Your task to perform on an android device: set the timer Image 0: 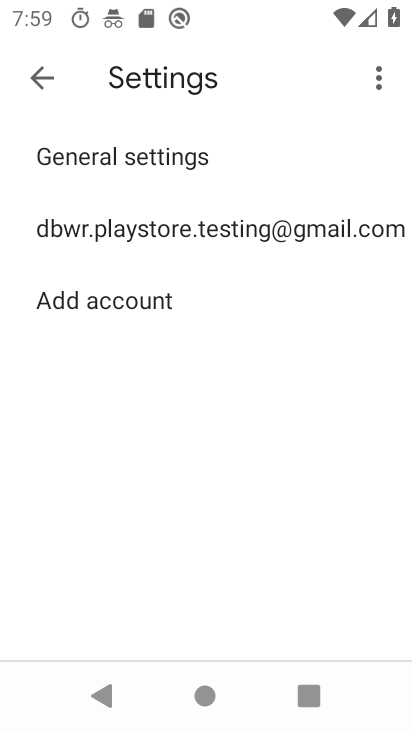
Step 0: press home button
Your task to perform on an android device: set the timer Image 1: 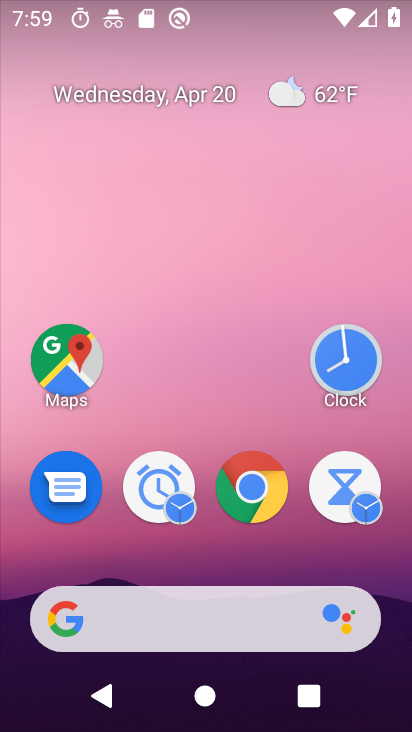
Step 1: drag from (313, 586) to (124, 2)
Your task to perform on an android device: set the timer Image 2: 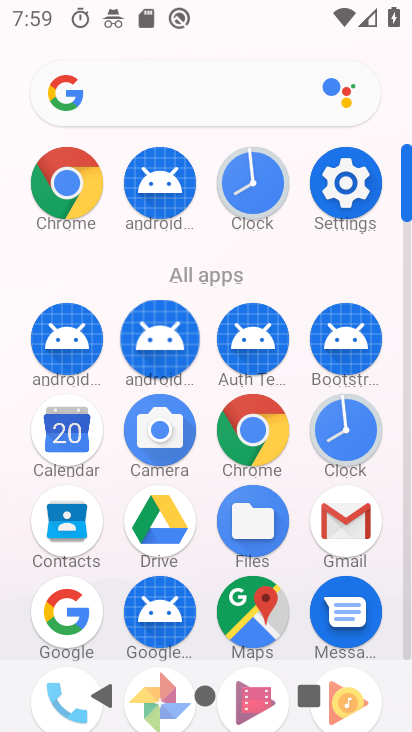
Step 2: drag from (261, 605) to (127, 154)
Your task to perform on an android device: set the timer Image 3: 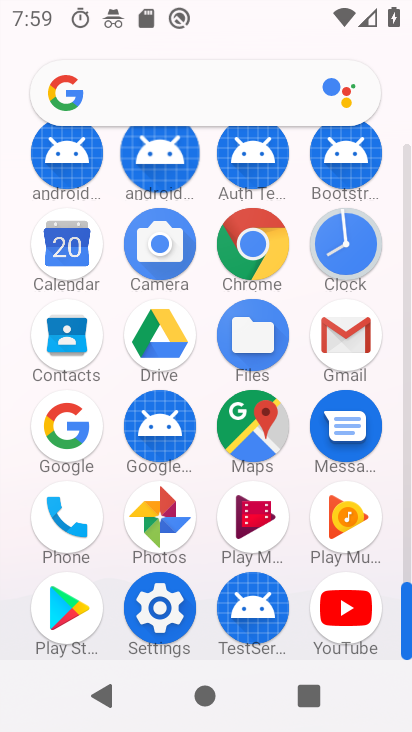
Step 3: click (334, 242)
Your task to perform on an android device: set the timer Image 4: 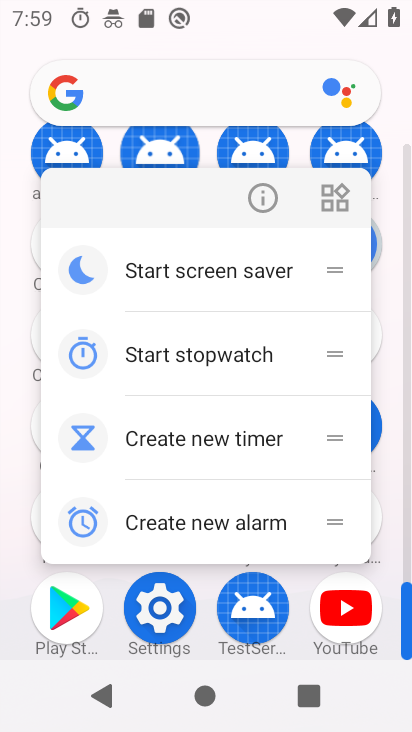
Step 4: click (338, 232)
Your task to perform on an android device: set the timer Image 5: 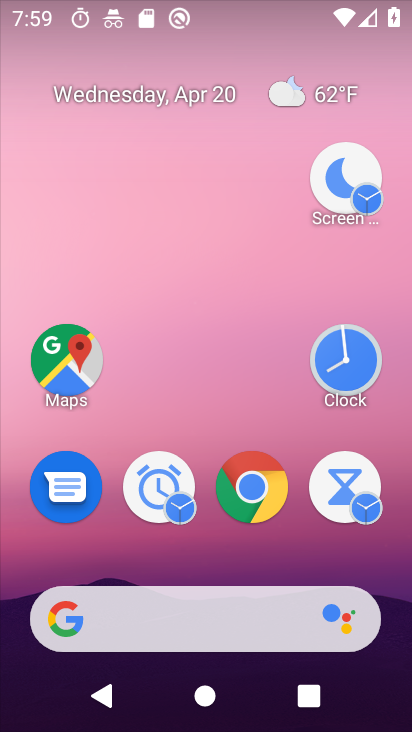
Step 5: drag from (298, 584) to (297, 268)
Your task to perform on an android device: set the timer Image 6: 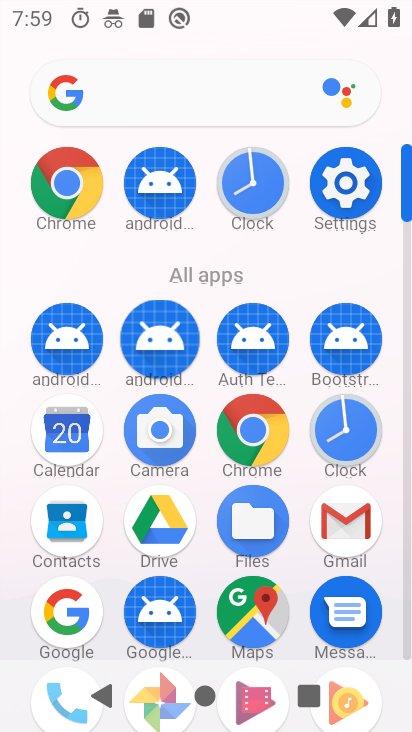
Step 6: click (341, 440)
Your task to perform on an android device: set the timer Image 7: 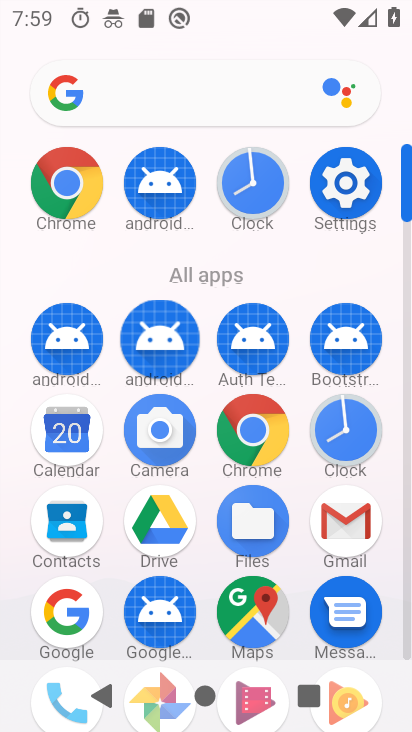
Step 7: click (341, 440)
Your task to perform on an android device: set the timer Image 8: 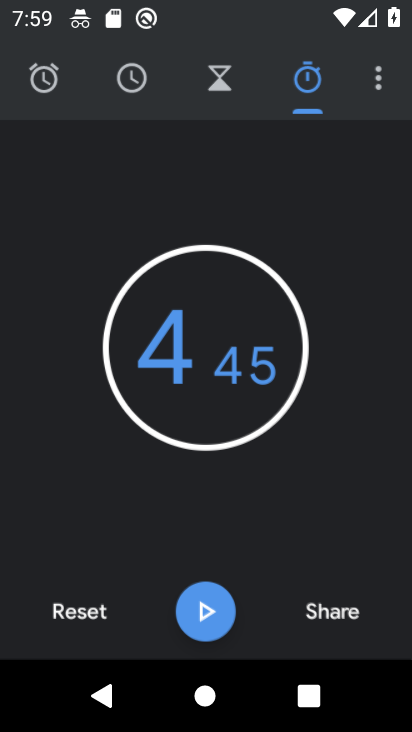
Step 8: click (342, 424)
Your task to perform on an android device: set the timer Image 9: 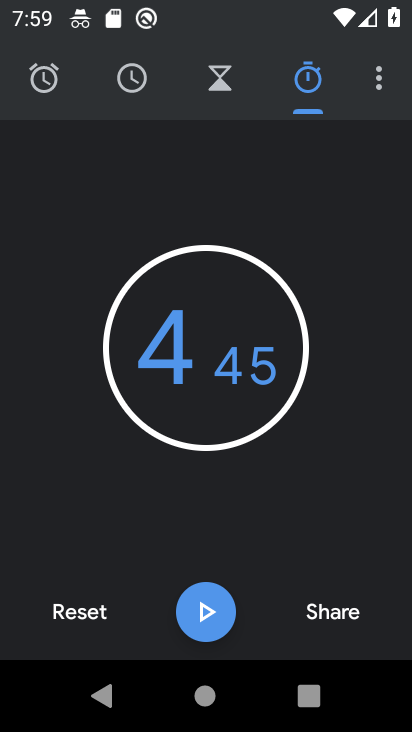
Step 9: click (133, 79)
Your task to perform on an android device: set the timer Image 10: 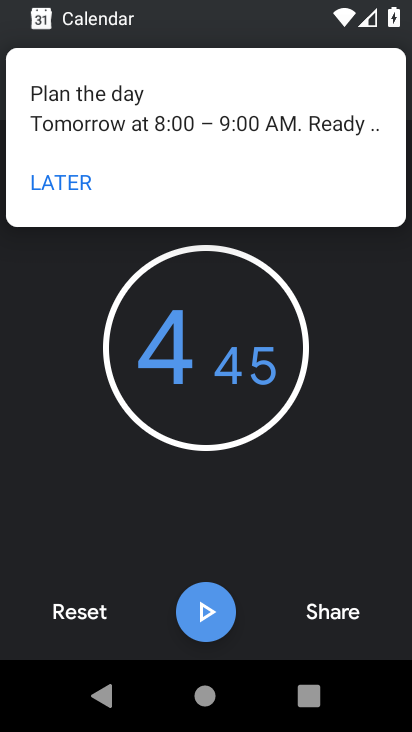
Step 10: click (213, 87)
Your task to perform on an android device: set the timer Image 11: 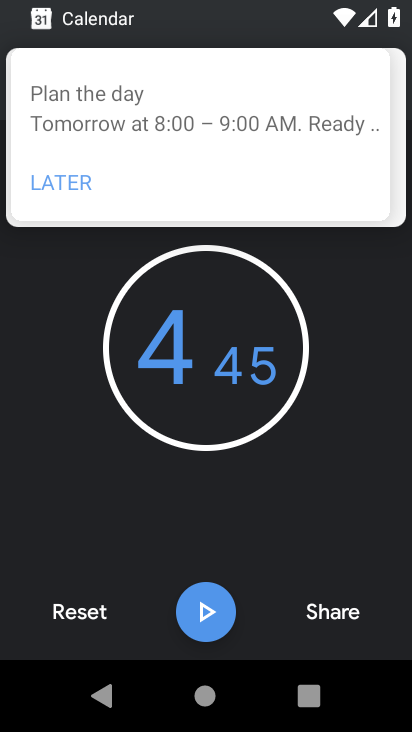
Step 11: drag from (6, 272) to (69, 262)
Your task to perform on an android device: set the timer Image 12: 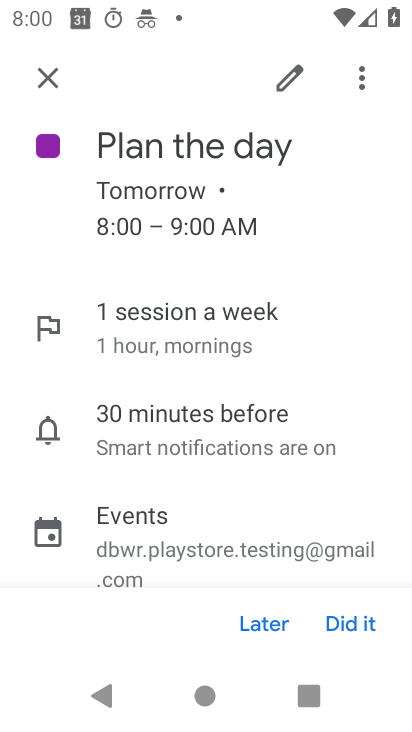
Step 12: click (50, 76)
Your task to perform on an android device: set the timer Image 13: 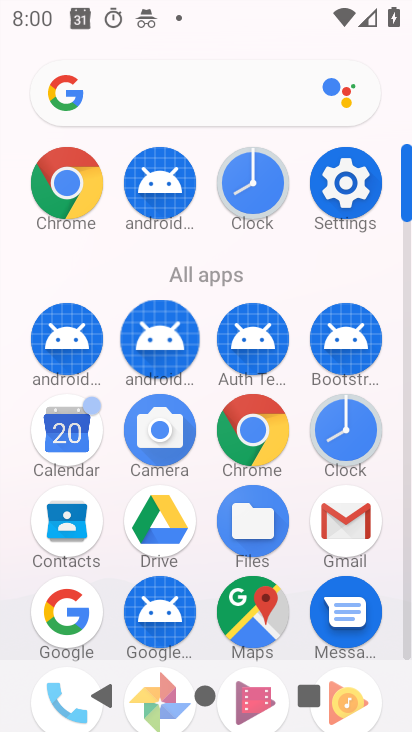
Step 13: click (233, 186)
Your task to perform on an android device: set the timer Image 14: 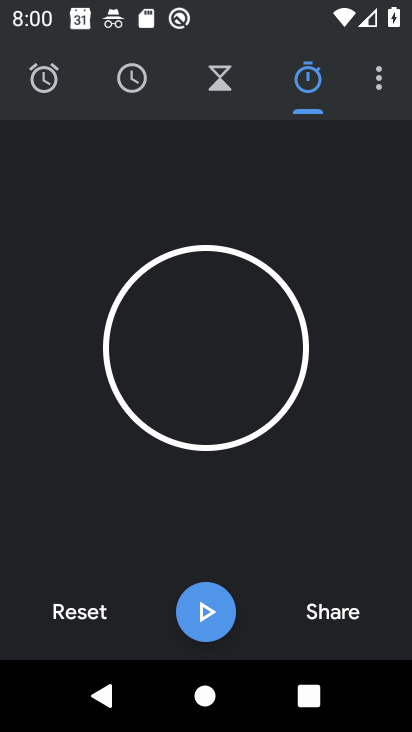
Step 14: click (233, 186)
Your task to perform on an android device: set the timer Image 15: 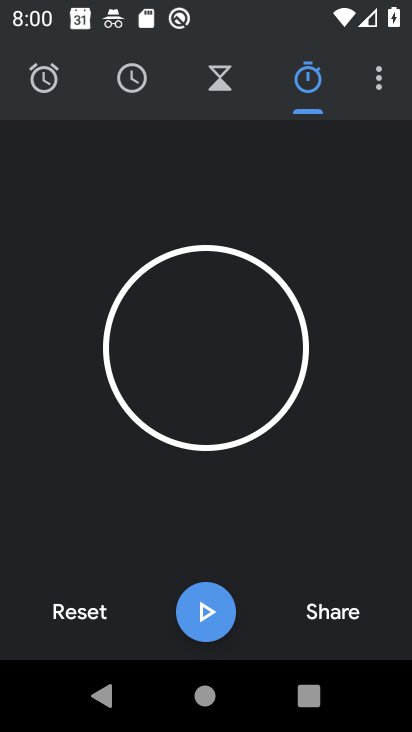
Step 15: click (124, 83)
Your task to perform on an android device: set the timer Image 16: 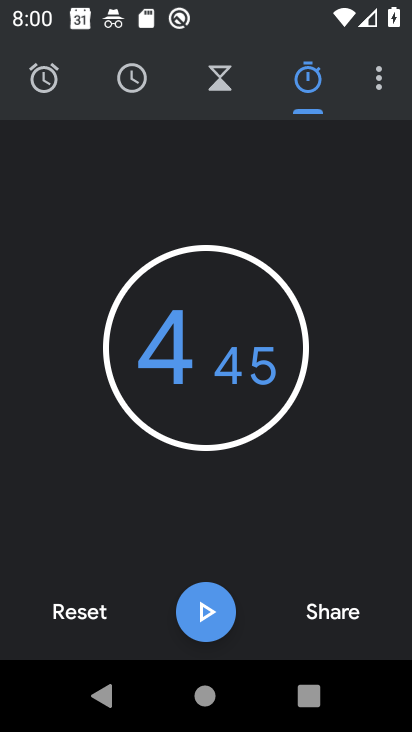
Step 16: click (218, 80)
Your task to perform on an android device: set the timer Image 17: 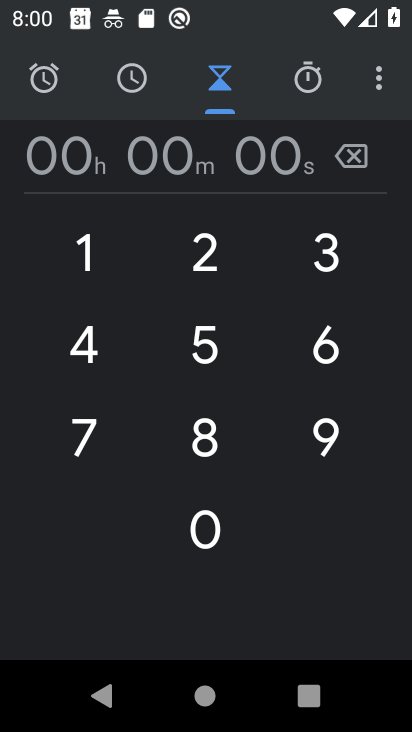
Step 17: click (184, 420)
Your task to perform on an android device: set the timer Image 18: 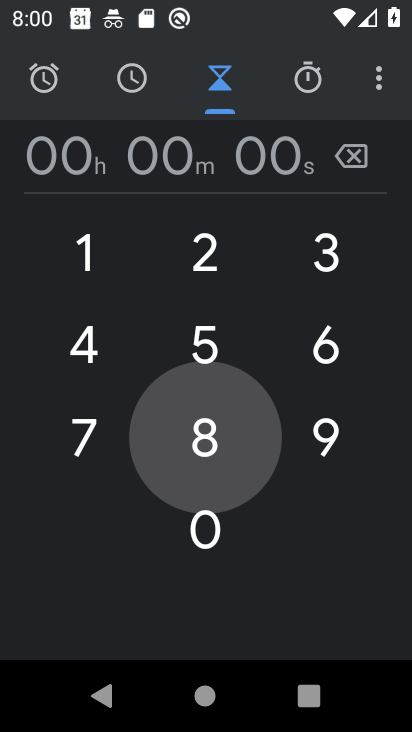
Step 18: click (184, 420)
Your task to perform on an android device: set the timer Image 19: 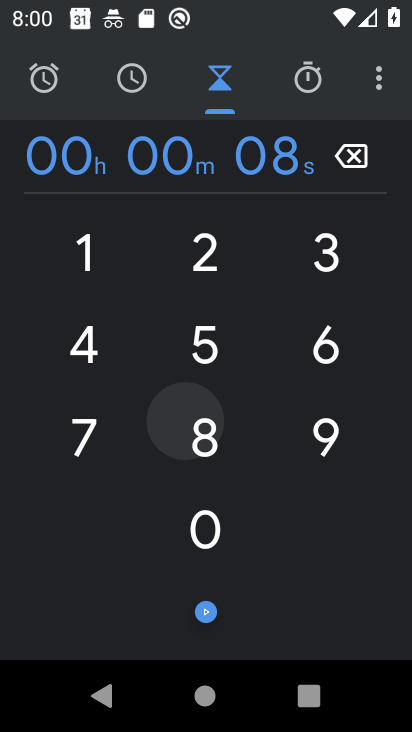
Step 19: click (184, 420)
Your task to perform on an android device: set the timer Image 20: 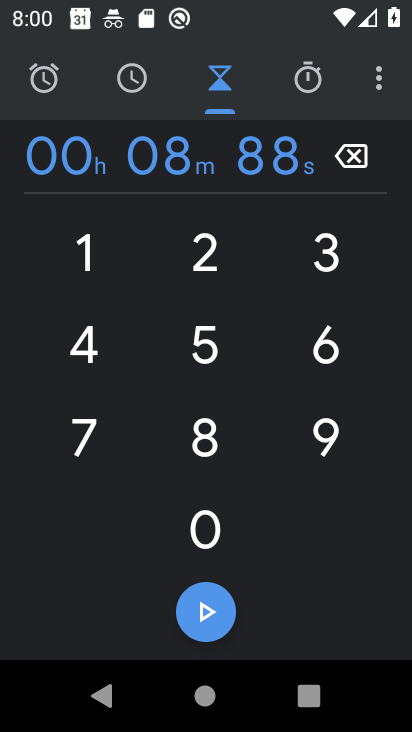
Step 20: click (210, 603)
Your task to perform on an android device: set the timer Image 21: 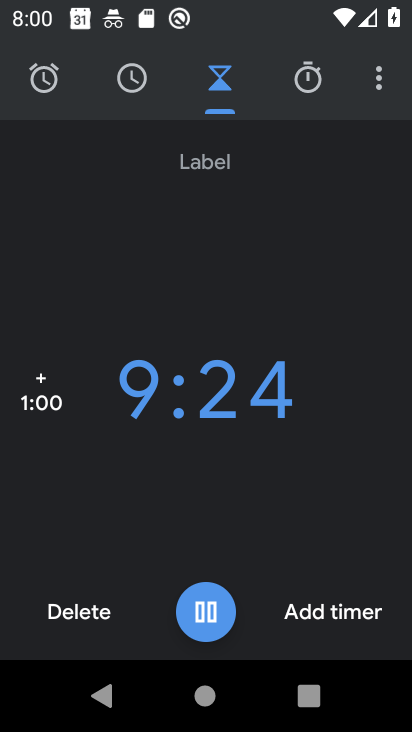
Step 21: click (206, 602)
Your task to perform on an android device: set the timer Image 22: 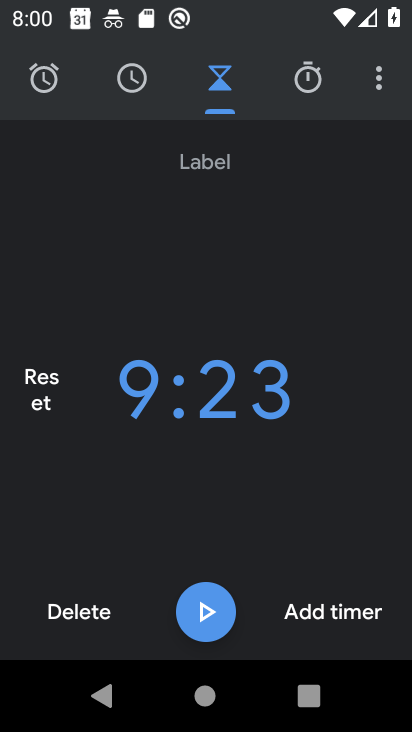
Step 22: task complete